Your task to perform on an android device: Open Google Chrome Image 0: 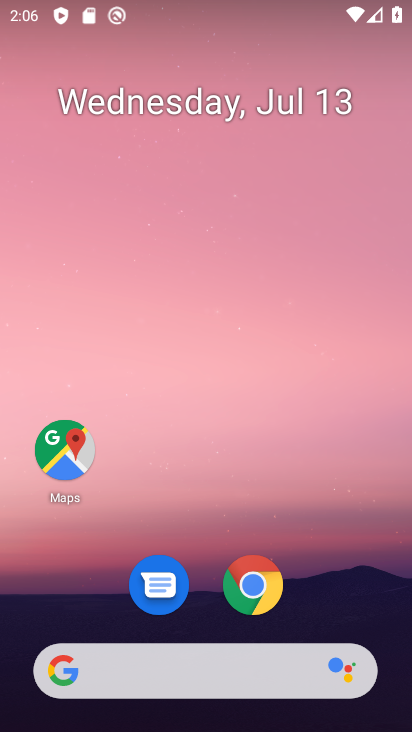
Step 0: click (256, 593)
Your task to perform on an android device: Open Google Chrome Image 1: 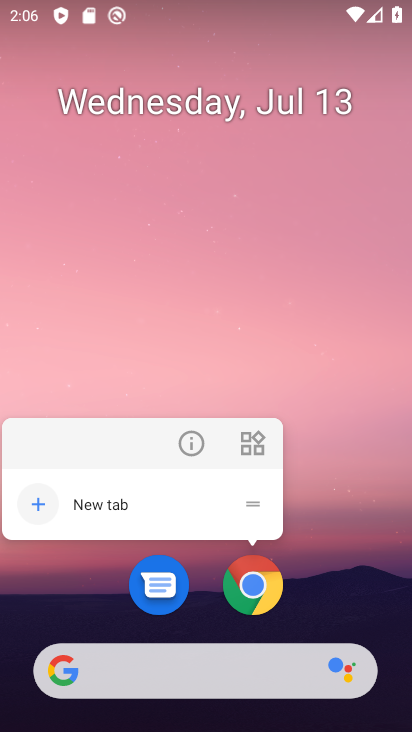
Step 1: click (254, 590)
Your task to perform on an android device: Open Google Chrome Image 2: 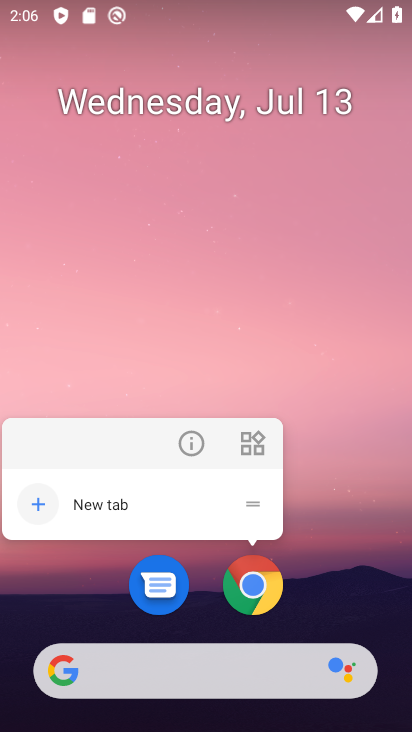
Step 2: click (254, 590)
Your task to perform on an android device: Open Google Chrome Image 3: 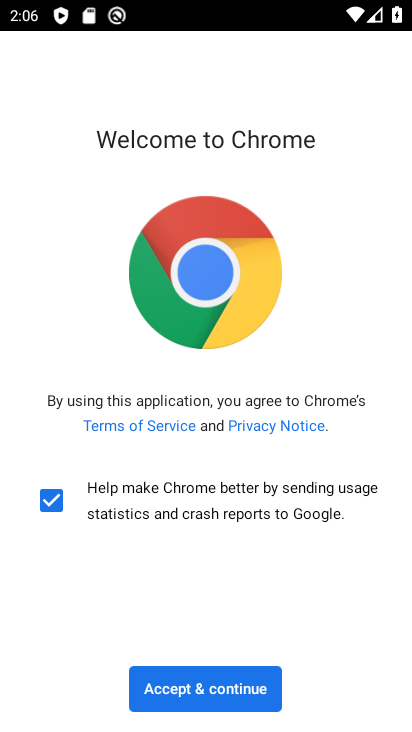
Step 3: click (221, 709)
Your task to perform on an android device: Open Google Chrome Image 4: 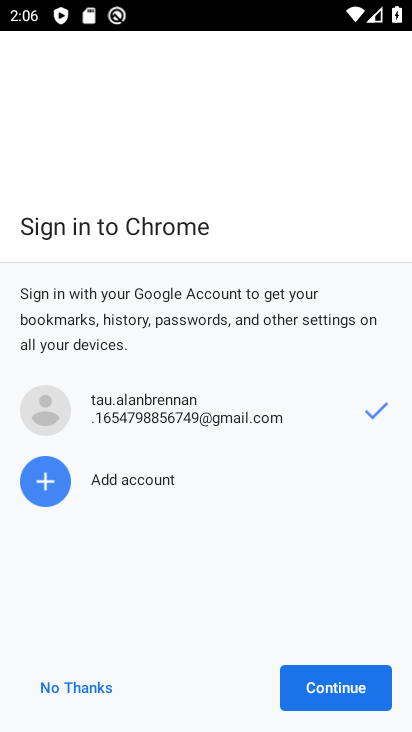
Step 4: click (320, 694)
Your task to perform on an android device: Open Google Chrome Image 5: 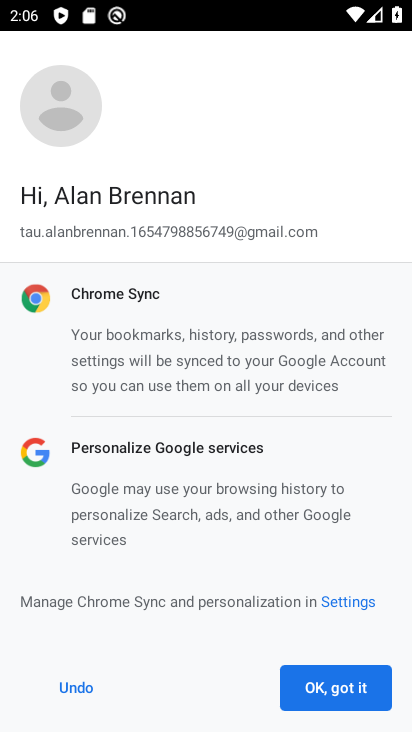
Step 5: click (337, 678)
Your task to perform on an android device: Open Google Chrome Image 6: 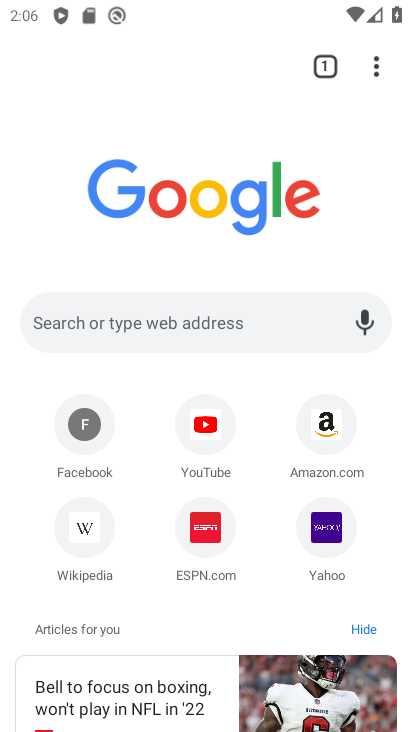
Step 6: task complete